Your task to perform on an android device: check data usage Image 0: 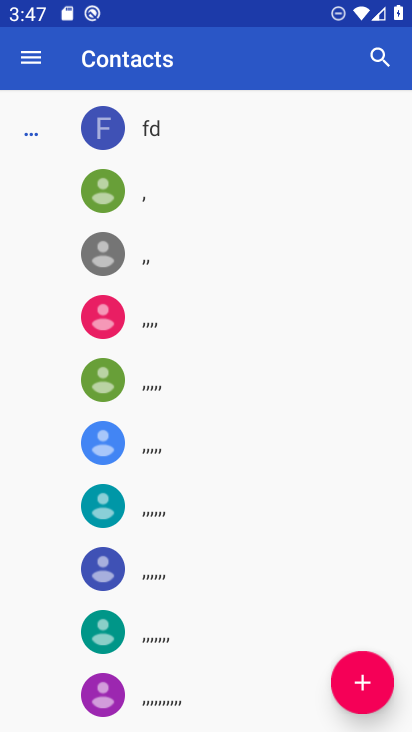
Step 0: press back button
Your task to perform on an android device: check data usage Image 1: 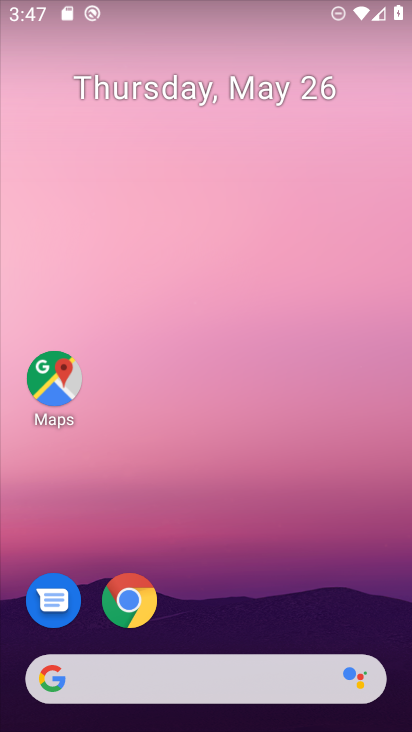
Step 1: drag from (262, 418) to (218, 33)
Your task to perform on an android device: check data usage Image 2: 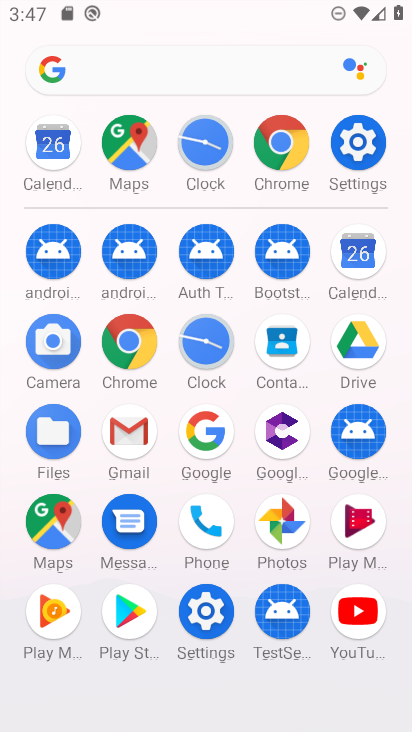
Step 2: drag from (7, 456) to (24, 221)
Your task to perform on an android device: check data usage Image 3: 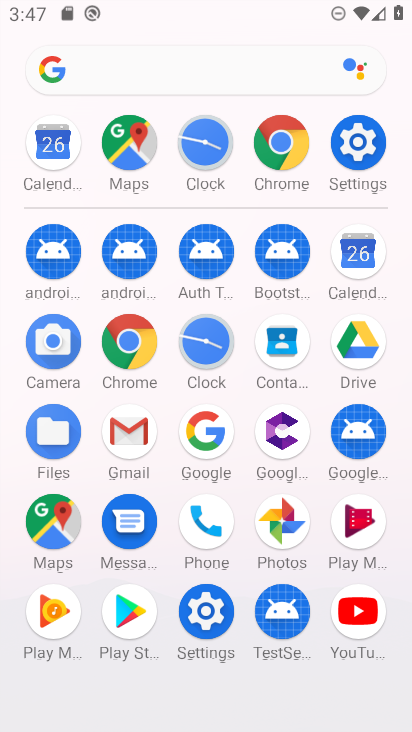
Step 3: click (203, 607)
Your task to perform on an android device: check data usage Image 4: 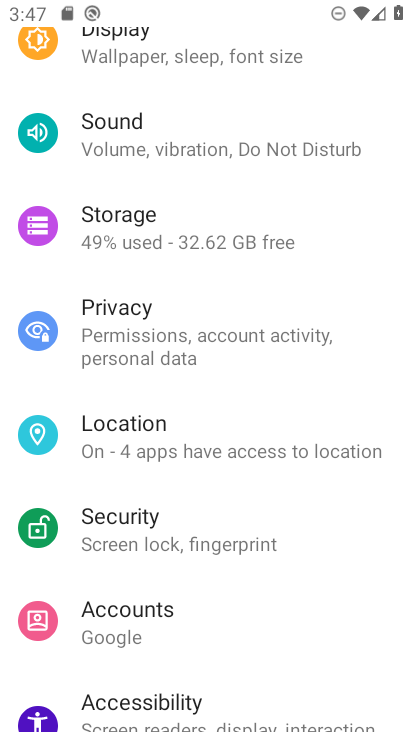
Step 4: drag from (202, 86) to (195, 614)
Your task to perform on an android device: check data usage Image 5: 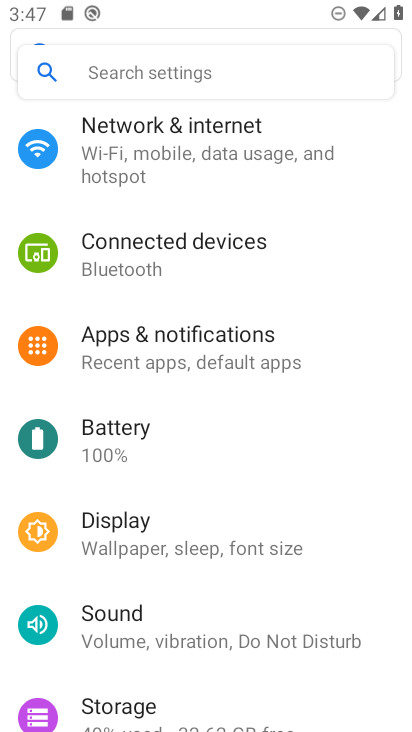
Step 5: click (260, 151)
Your task to perform on an android device: check data usage Image 6: 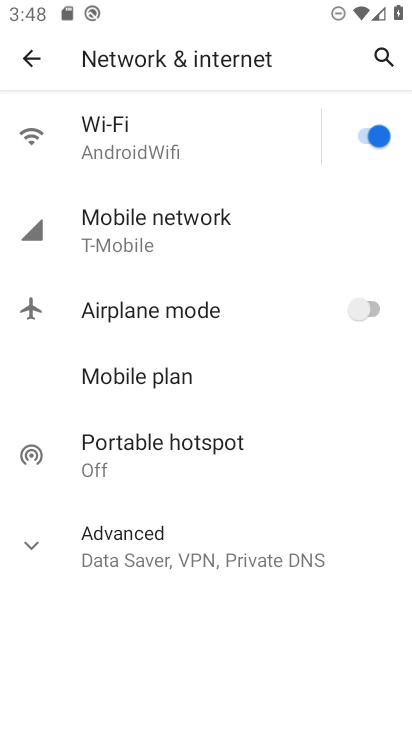
Step 6: click (154, 254)
Your task to perform on an android device: check data usage Image 7: 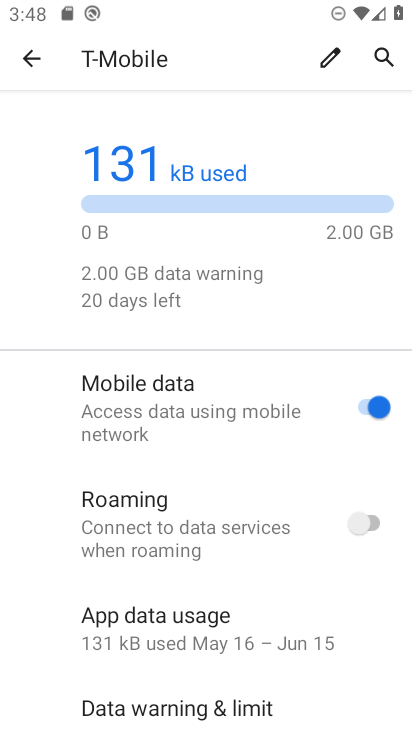
Step 7: task complete